Your task to perform on an android device: When is my next appointment? Image 0: 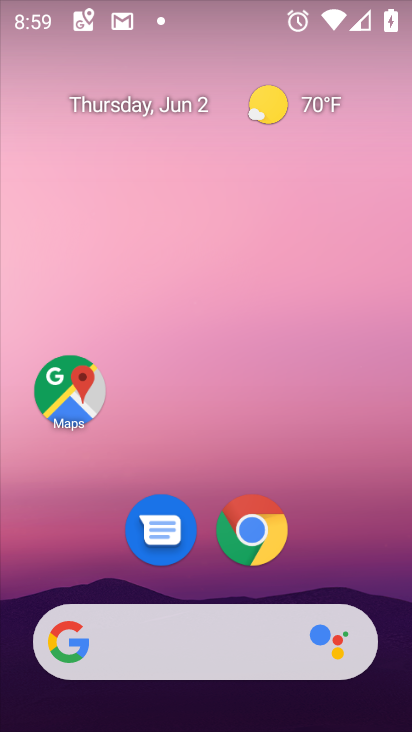
Step 0: drag from (159, 607) to (124, 350)
Your task to perform on an android device: When is my next appointment? Image 1: 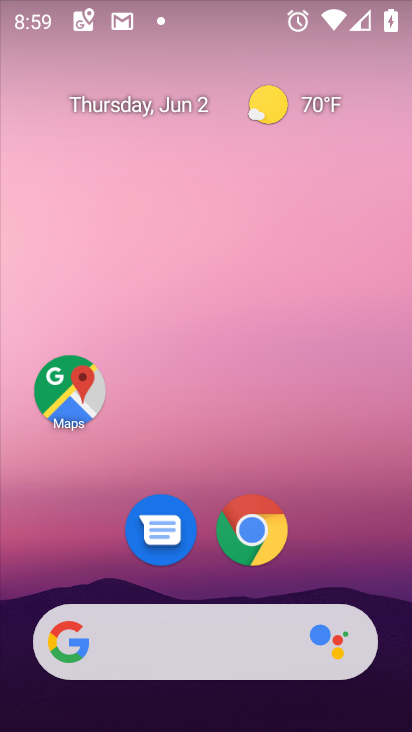
Step 1: drag from (174, 613) to (195, 393)
Your task to perform on an android device: When is my next appointment? Image 2: 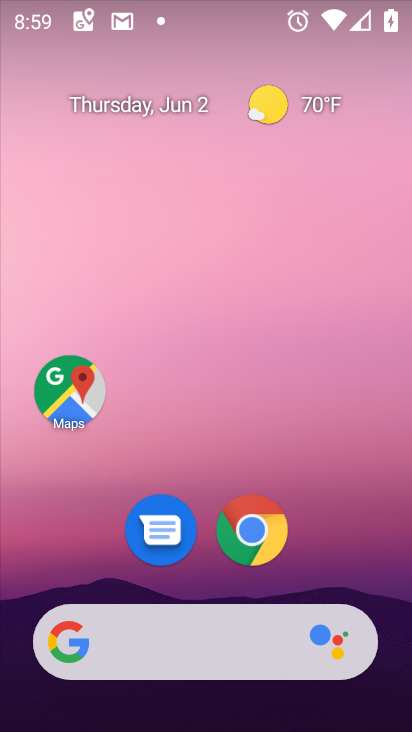
Step 2: drag from (182, 606) to (238, 79)
Your task to perform on an android device: When is my next appointment? Image 3: 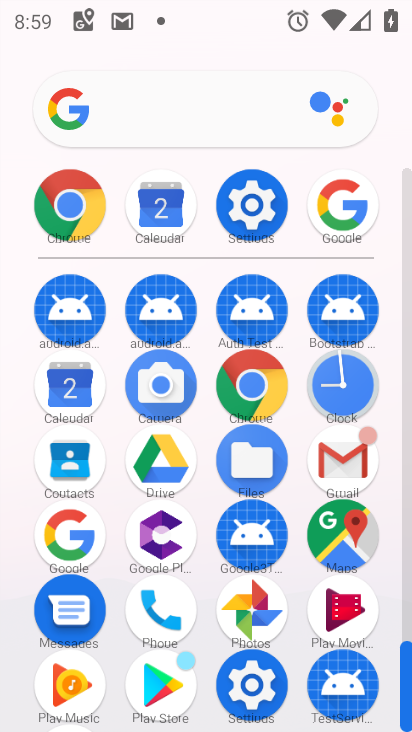
Step 3: click (72, 409)
Your task to perform on an android device: When is my next appointment? Image 4: 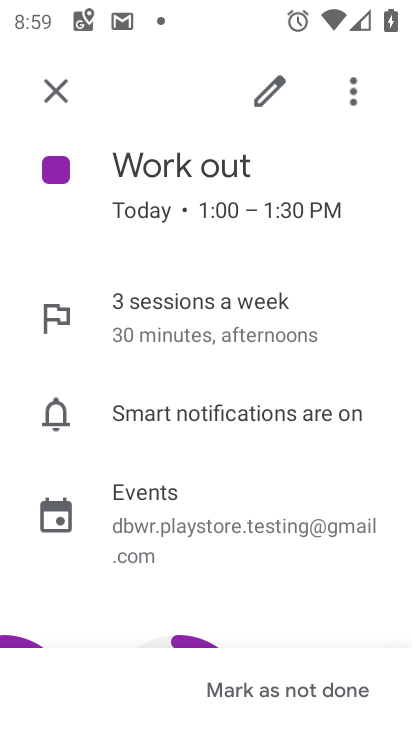
Step 4: click (61, 94)
Your task to perform on an android device: When is my next appointment? Image 5: 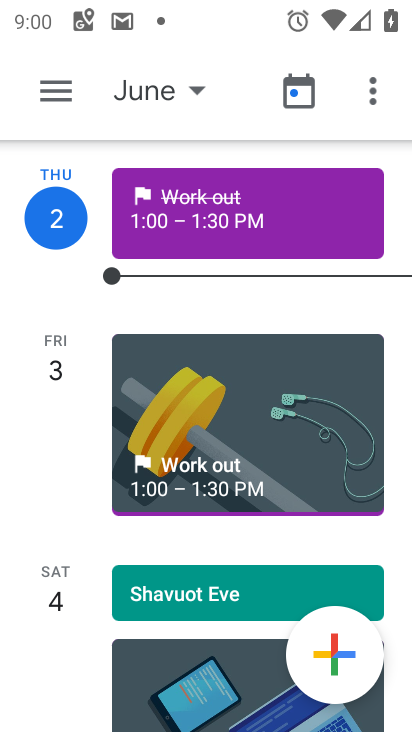
Step 5: click (252, 207)
Your task to perform on an android device: When is my next appointment? Image 6: 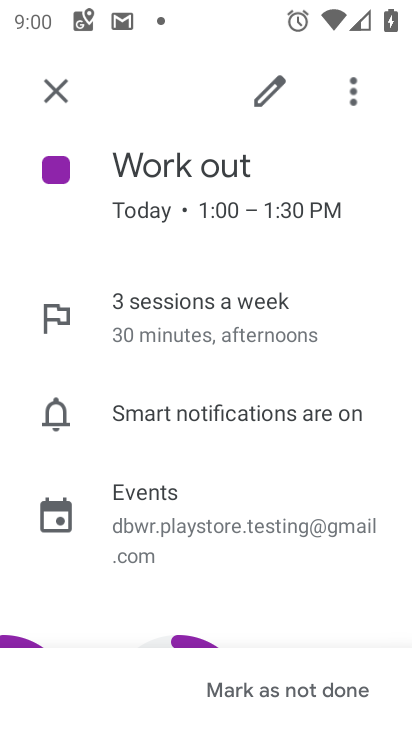
Step 6: task complete